Your task to perform on an android device: Go to Yahoo.com Image 0: 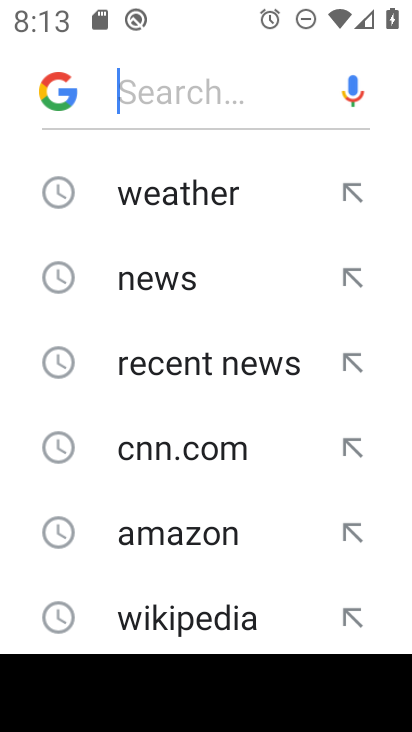
Step 0: press home button
Your task to perform on an android device: Go to Yahoo.com Image 1: 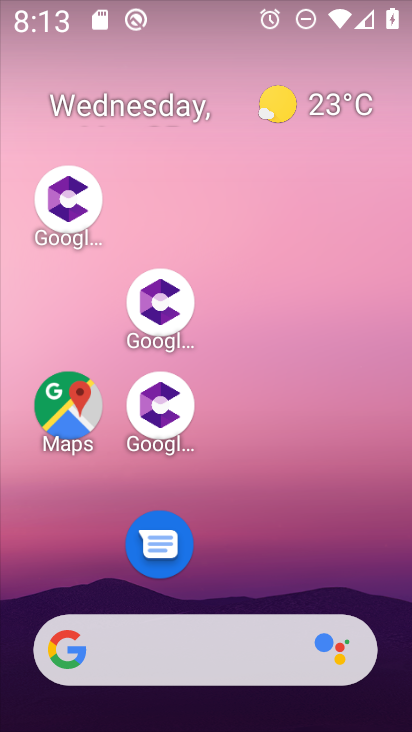
Step 1: drag from (292, 573) to (235, 60)
Your task to perform on an android device: Go to Yahoo.com Image 2: 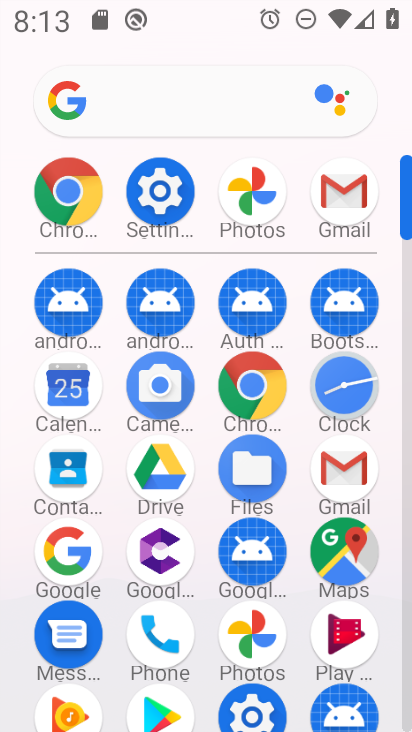
Step 2: click (260, 389)
Your task to perform on an android device: Go to Yahoo.com Image 3: 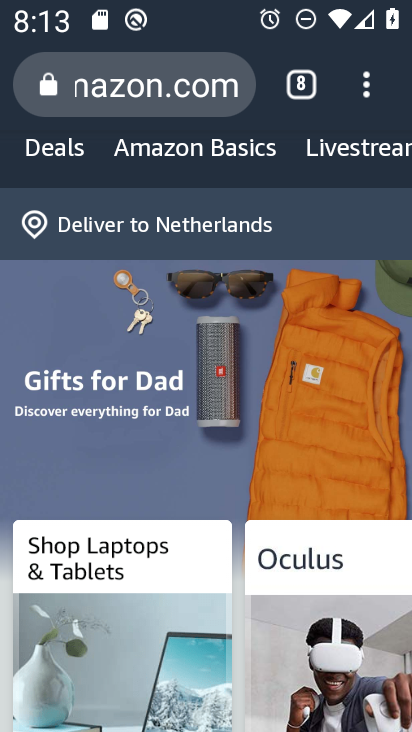
Step 3: click (373, 84)
Your task to perform on an android device: Go to Yahoo.com Image 4: 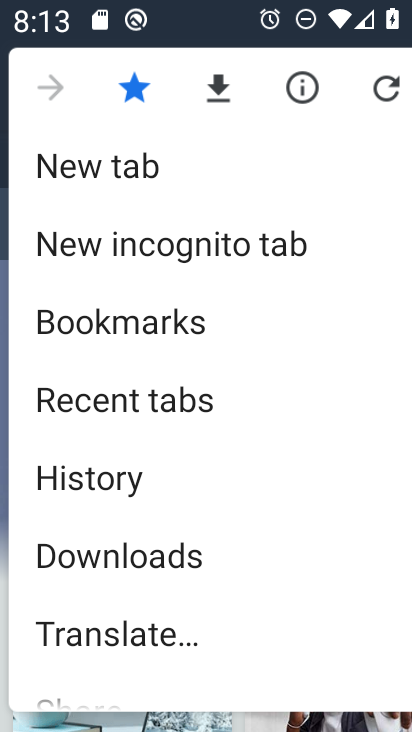
Step 4: click (132, 161)
Your task to perform on an android device: Go to Yahoo.com Image 5: 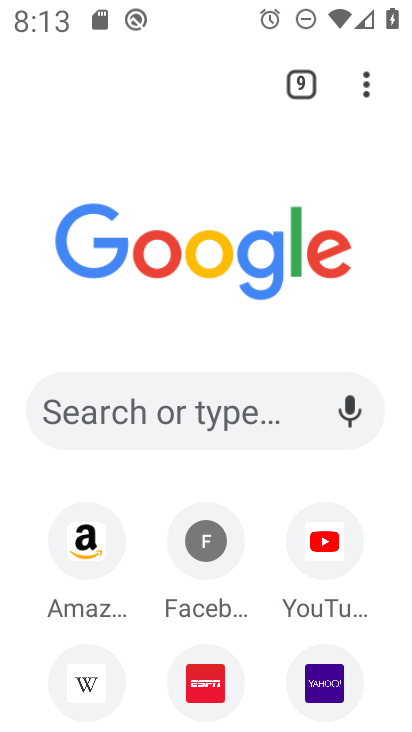
Step 5: click (317, 676)
Your task to perform on an android device: Go to Yahoo.com Image 6: 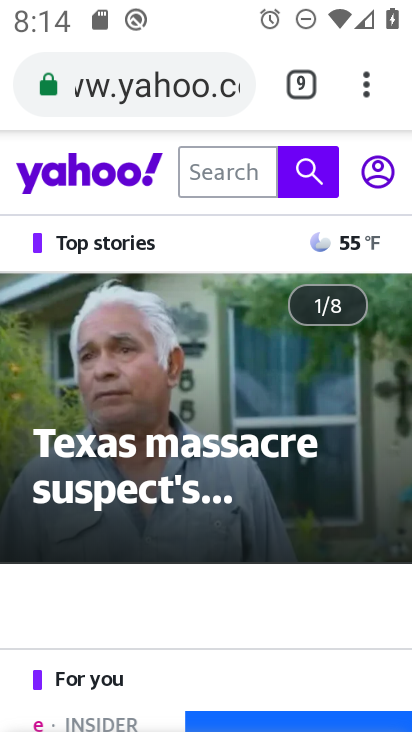
Step 6: task complete